Your task to perform on an android device: turn off notifications settings in the gmail app Image 0: 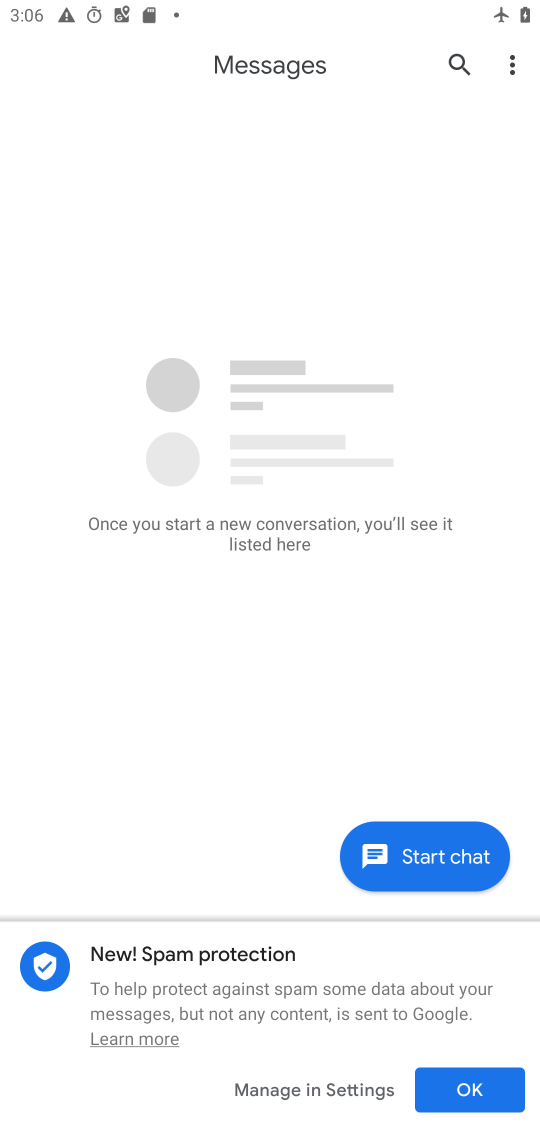
Step 0: press home button
Your task to perform on an android device: turn off notifications settings in the gmail app Image 1: 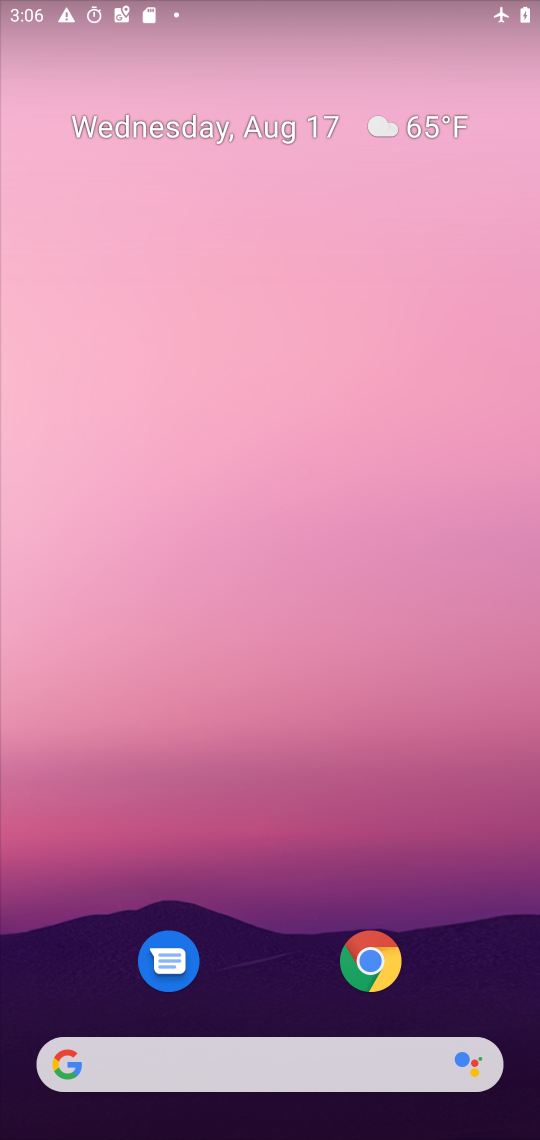
Step 1: drag from (394, 516) to (480, 1)
Your task to perform on an android device: turn off notifications settings in the gmail app Image 2: 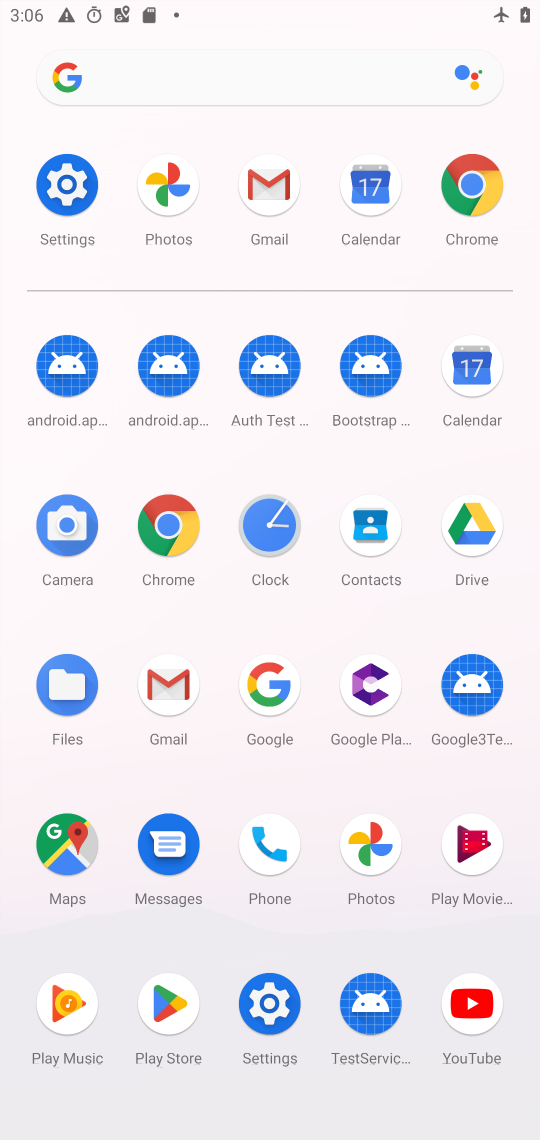
Step 2: click (185, 687)
Your task to perform on an android device: turn off notifications settings in the gmail app Image 3: 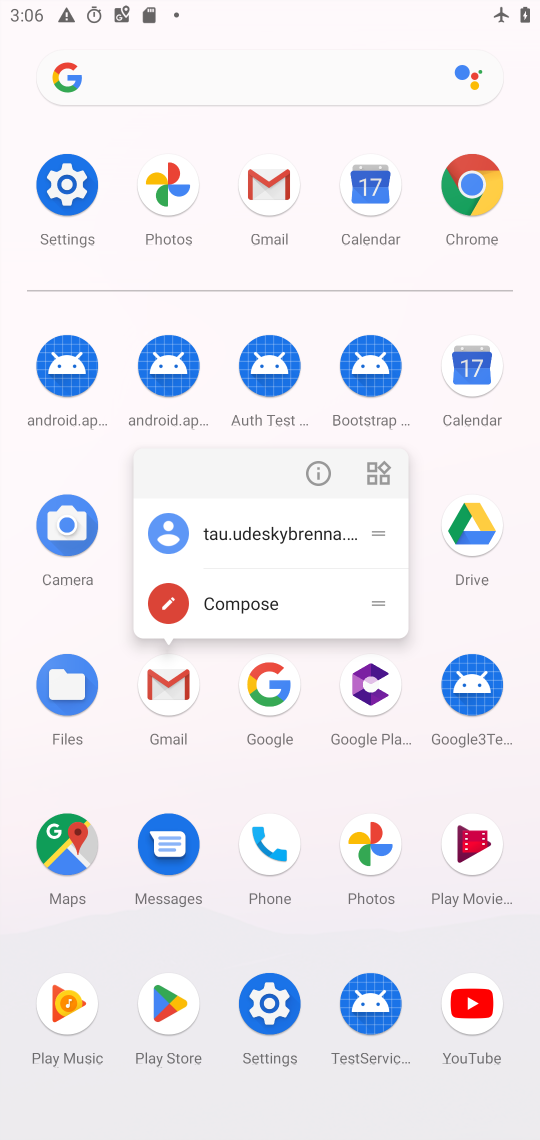
Step 3: click (173, 696)
Your task to perform on an android device: turn off notifications settings in the gmail app Image 4: 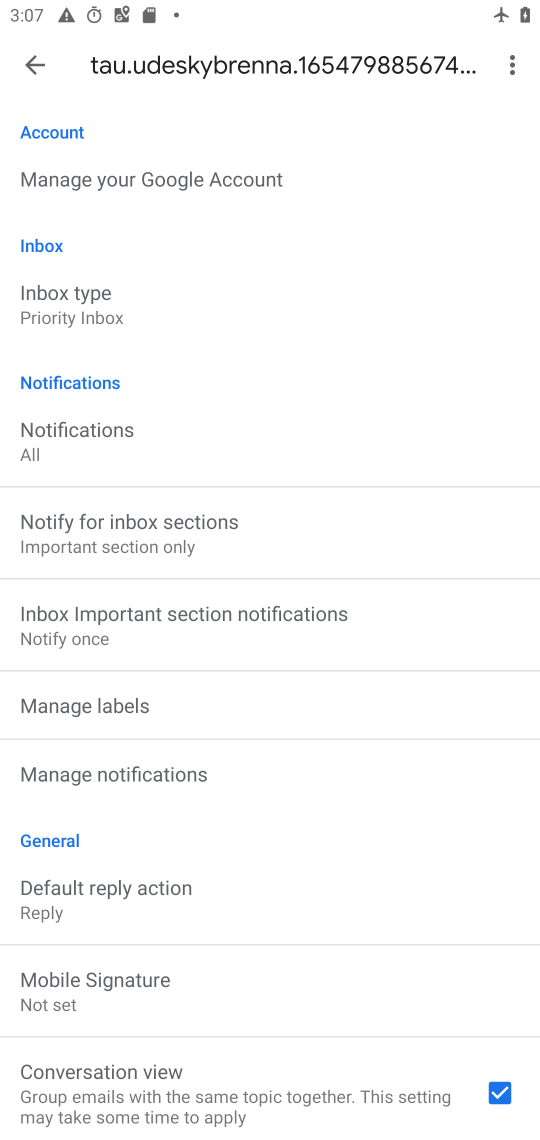
Step 4: drag from (302, 879) to (317, 202)
Your task to perform on an android device: turn off notifications settings in the gmail app Image 5: 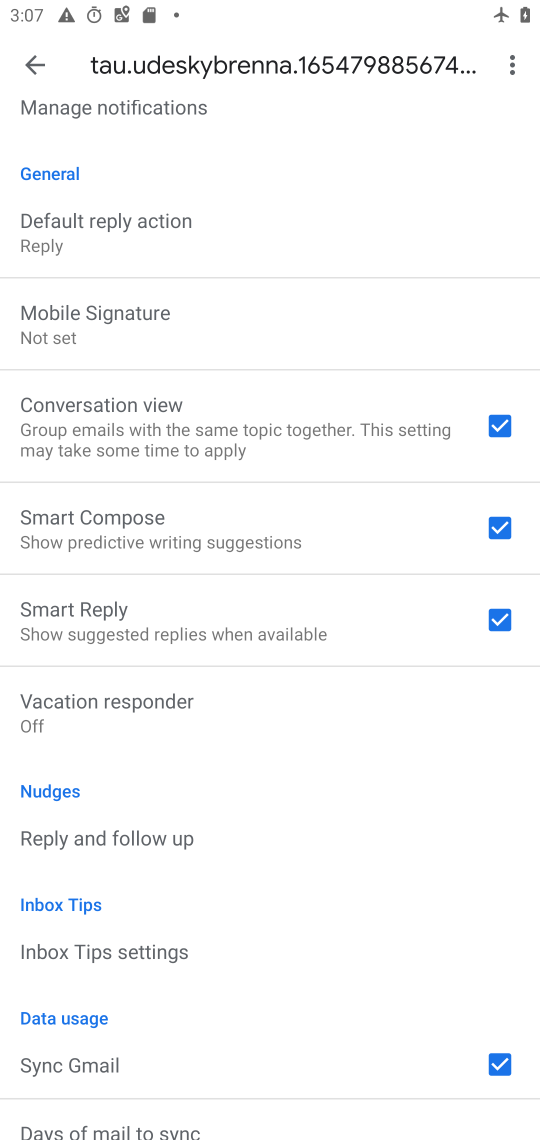
Step 5: click (239, 1070)
Your task to perform on an android device: turn off notifications settings in the gmail app Image 6: 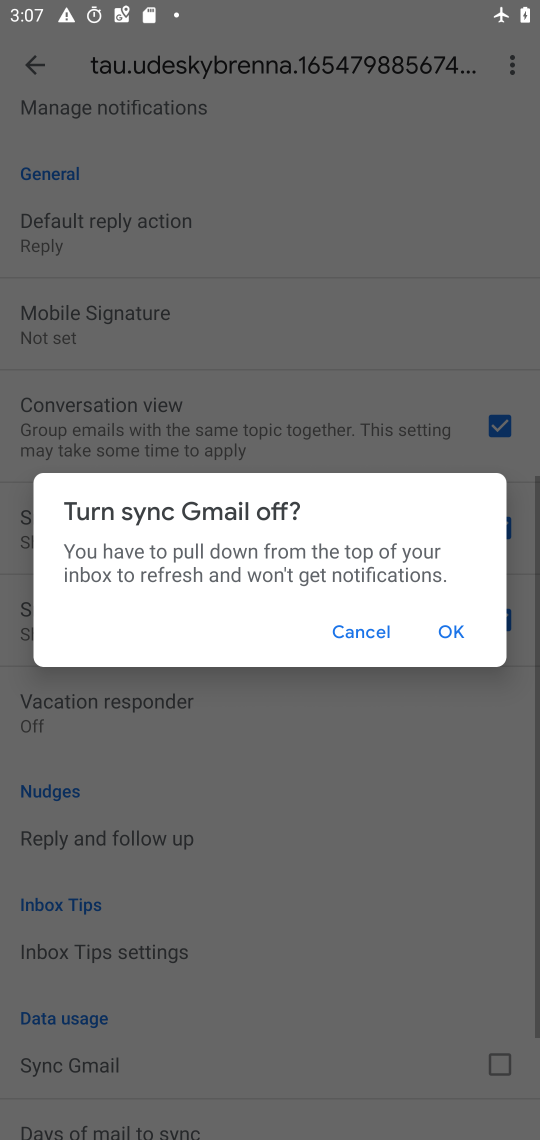
Step 6: click (33, 66)
Your task to perform on an android device: turn off notifications settings in the gmail app Image 7: 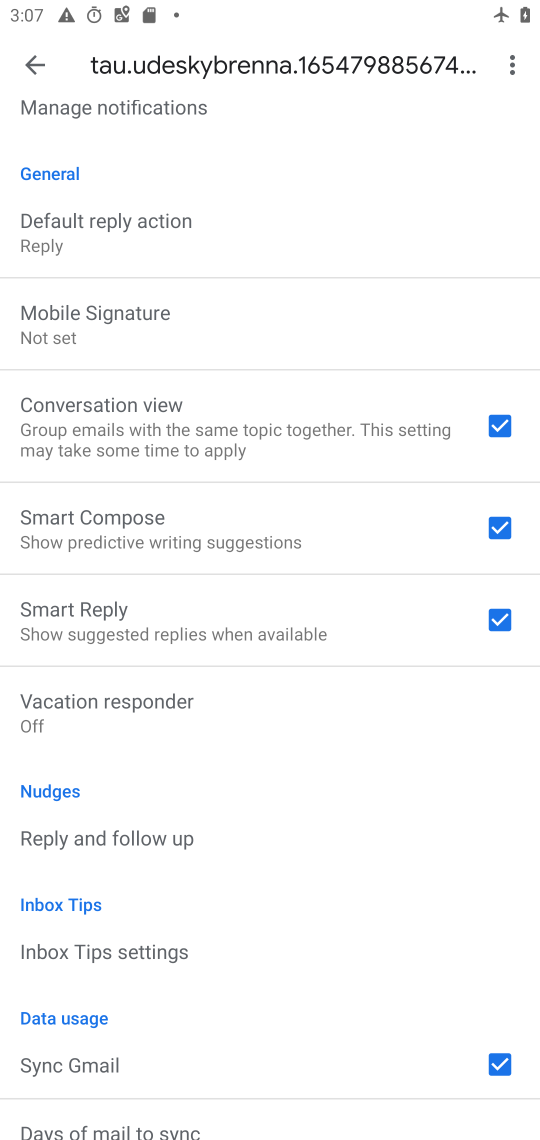
Step 7: click (50, 74)
Your task to perform on an android device: turn off notifications settings in the gmail app Image 8: 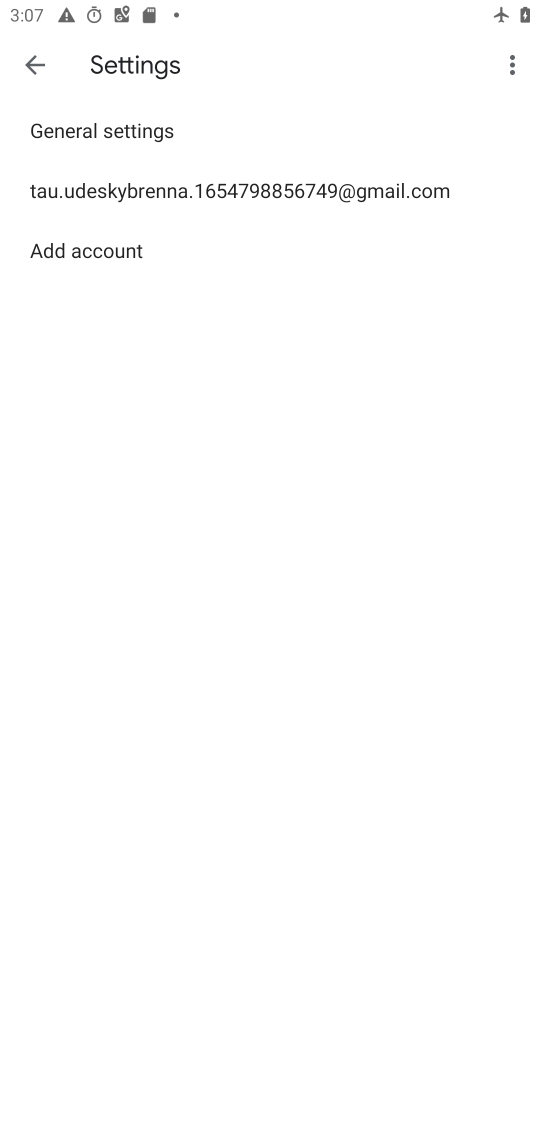
Step 8: click (166, 122)
Your task to perform on an android device: turn off notifications settings in the gmail app Image 9: 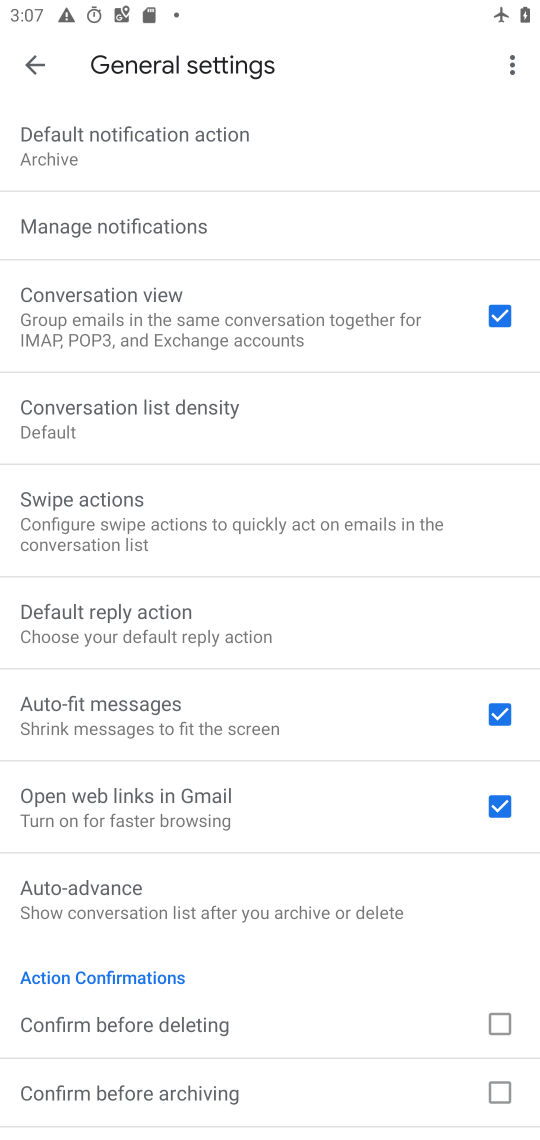
Step 9: click (210, 234)
Your task to perform on an android device: turn off notifications settings in the gmail app Image 10: 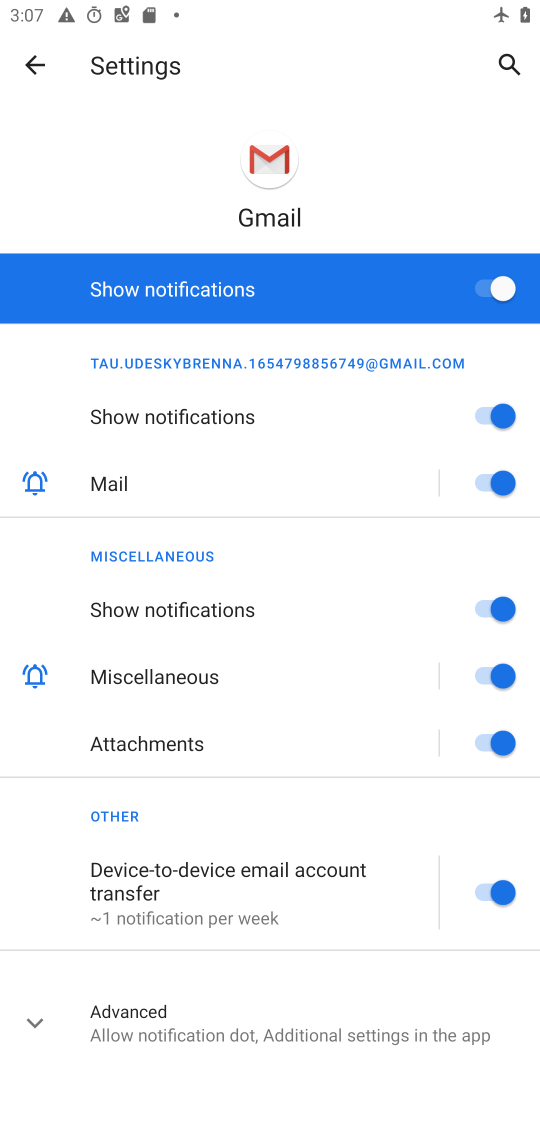
Step 10: click (481, 292)
Your task to perform on an android device: turn off notifications settings in the gmail app Image 11: 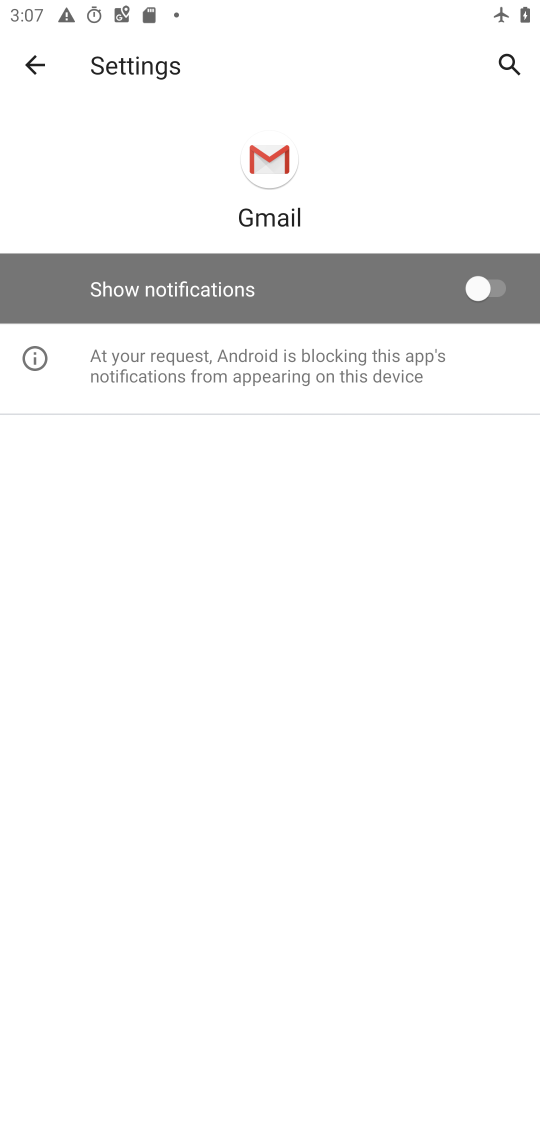
Step 11: task complete